Your task to perform on an android device: Clear all items from cart on newegg. Image 0: 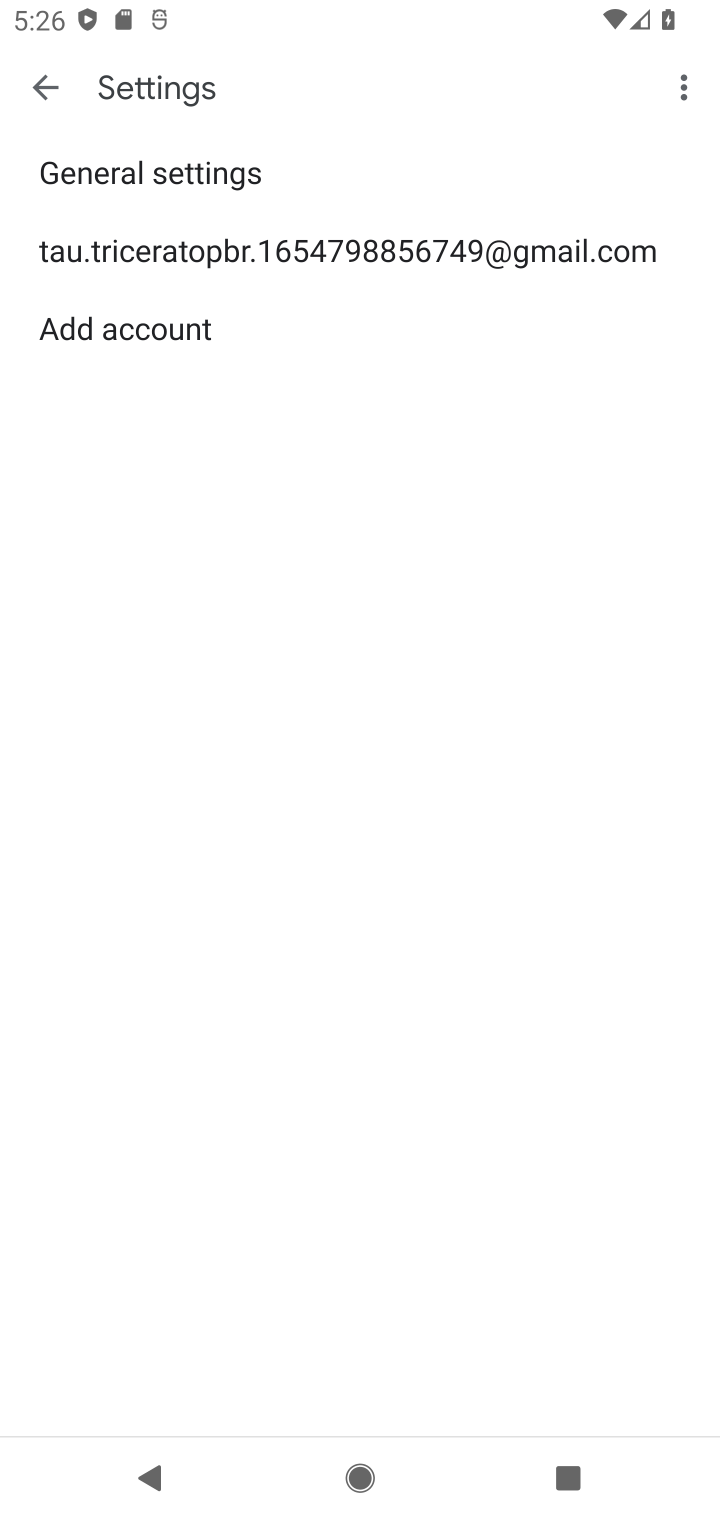
Step 0: press home button
Your task to perform on an android device: Clear all items from cart on newegg. Image 1: 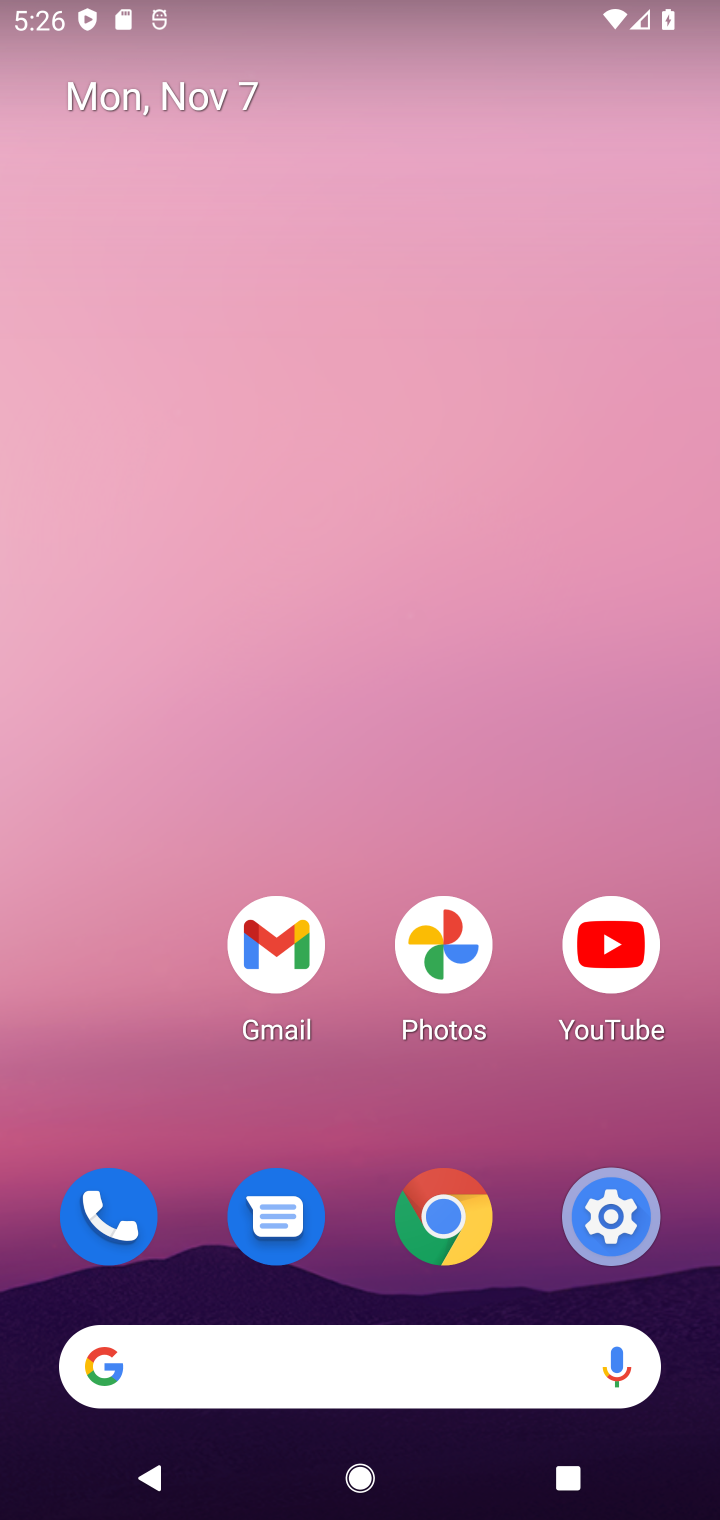
Step 1: drag from (310, 771) to (302, 145)
Your task to perform on an android device: Clear all items from cart on newegg. Image 2: 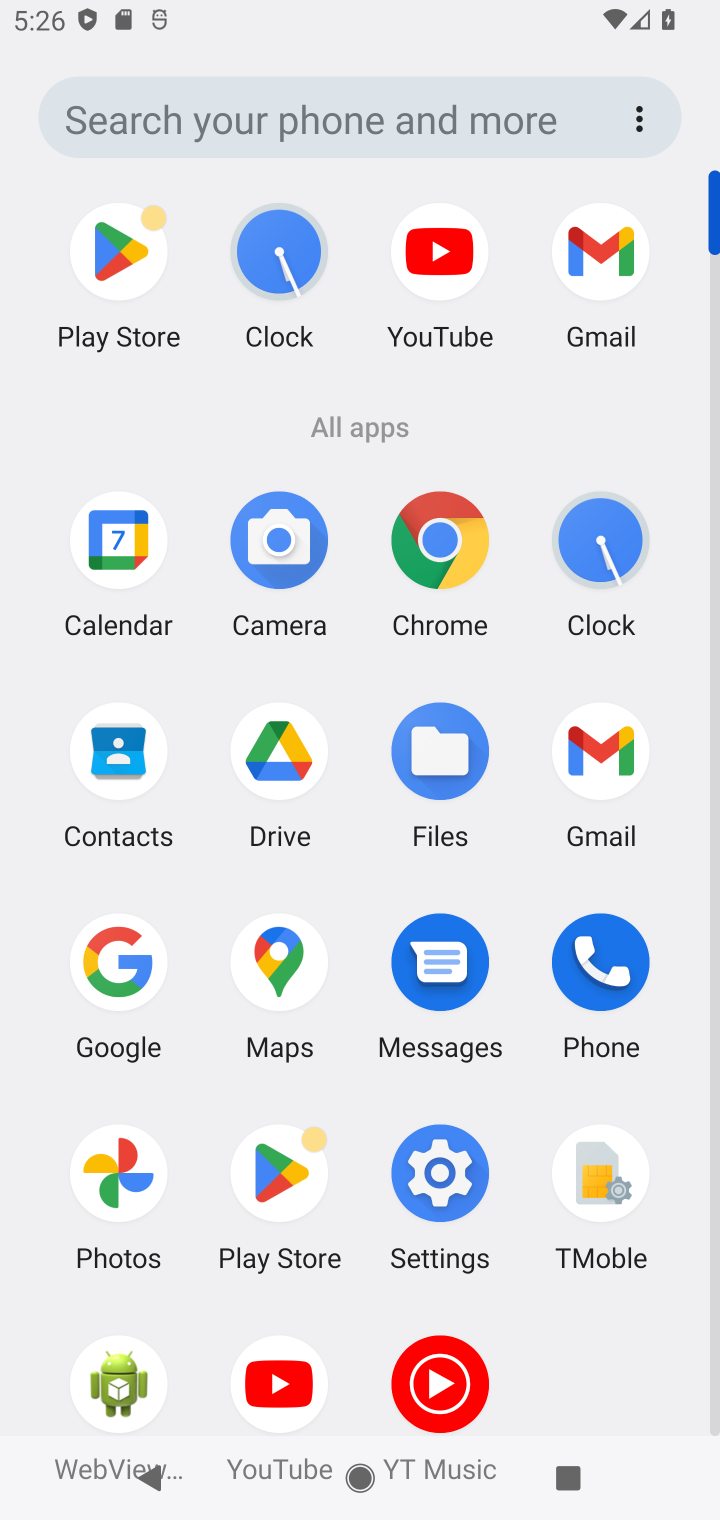
Step 2: click (447, 547)
Your task to perform on an android device: Clear all items from cart on newegg. Image 3: 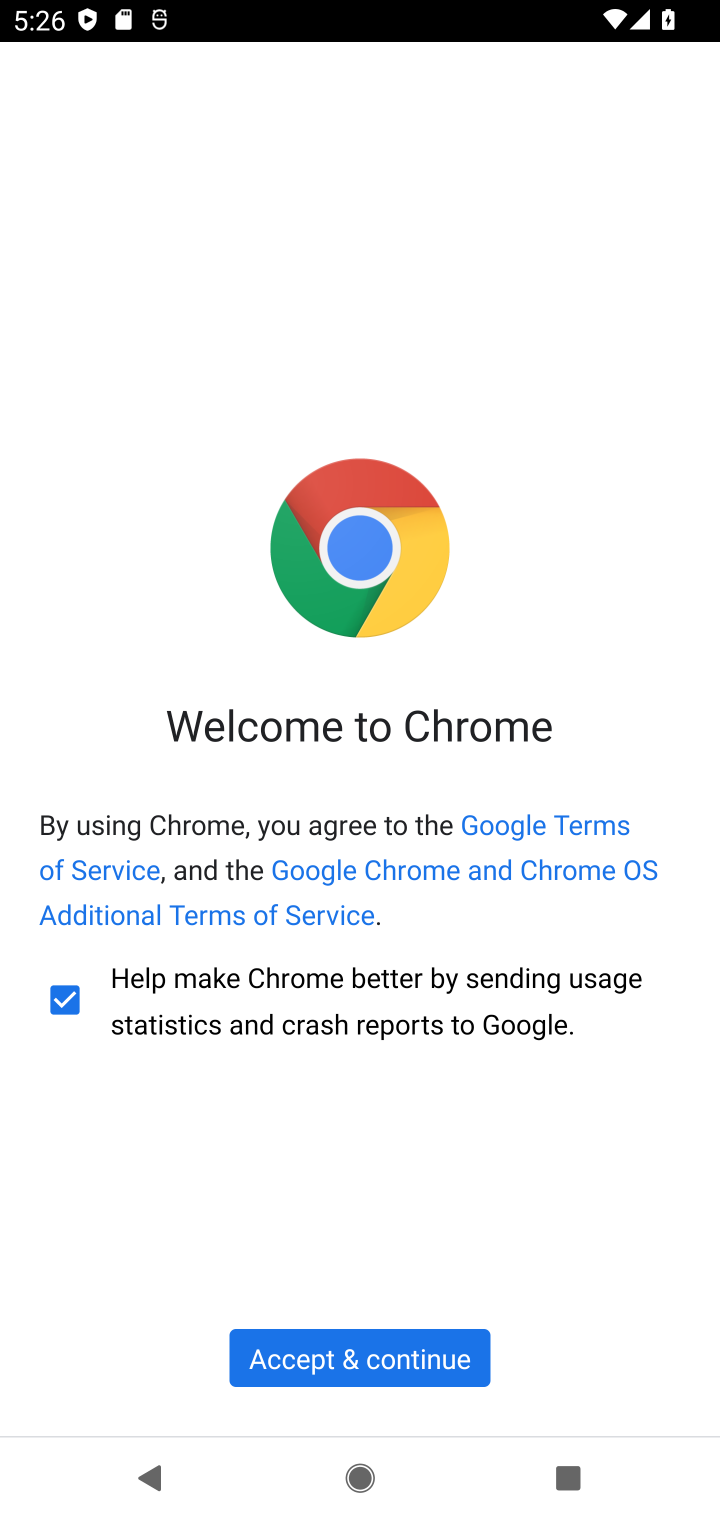
Step 3: click (351, 1349)
Your task to perform on an android device: Clear all items from cart on newegg. Image 4: 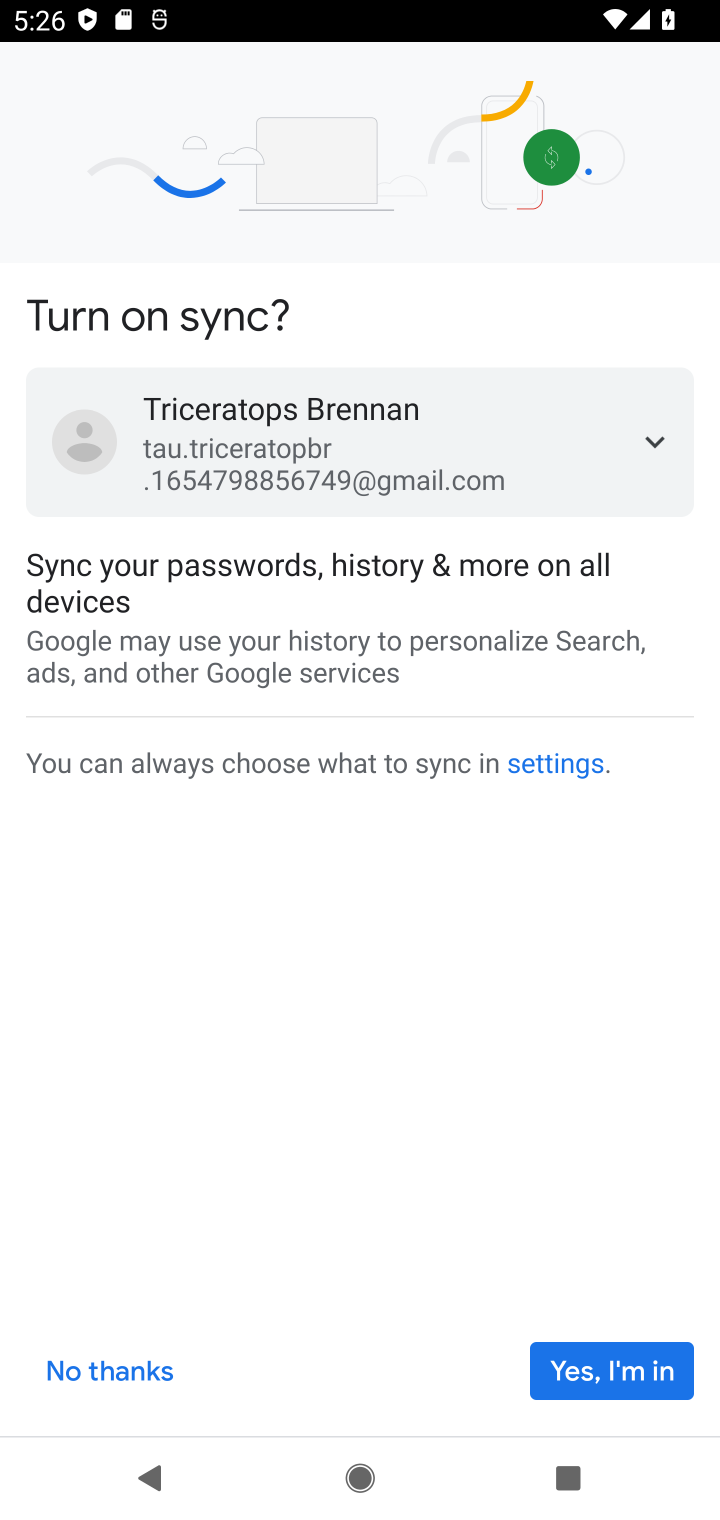
Step 4: click (617, 1348)
Your task to perform on an android device: Clear all items from cart on newegg. Image 5: 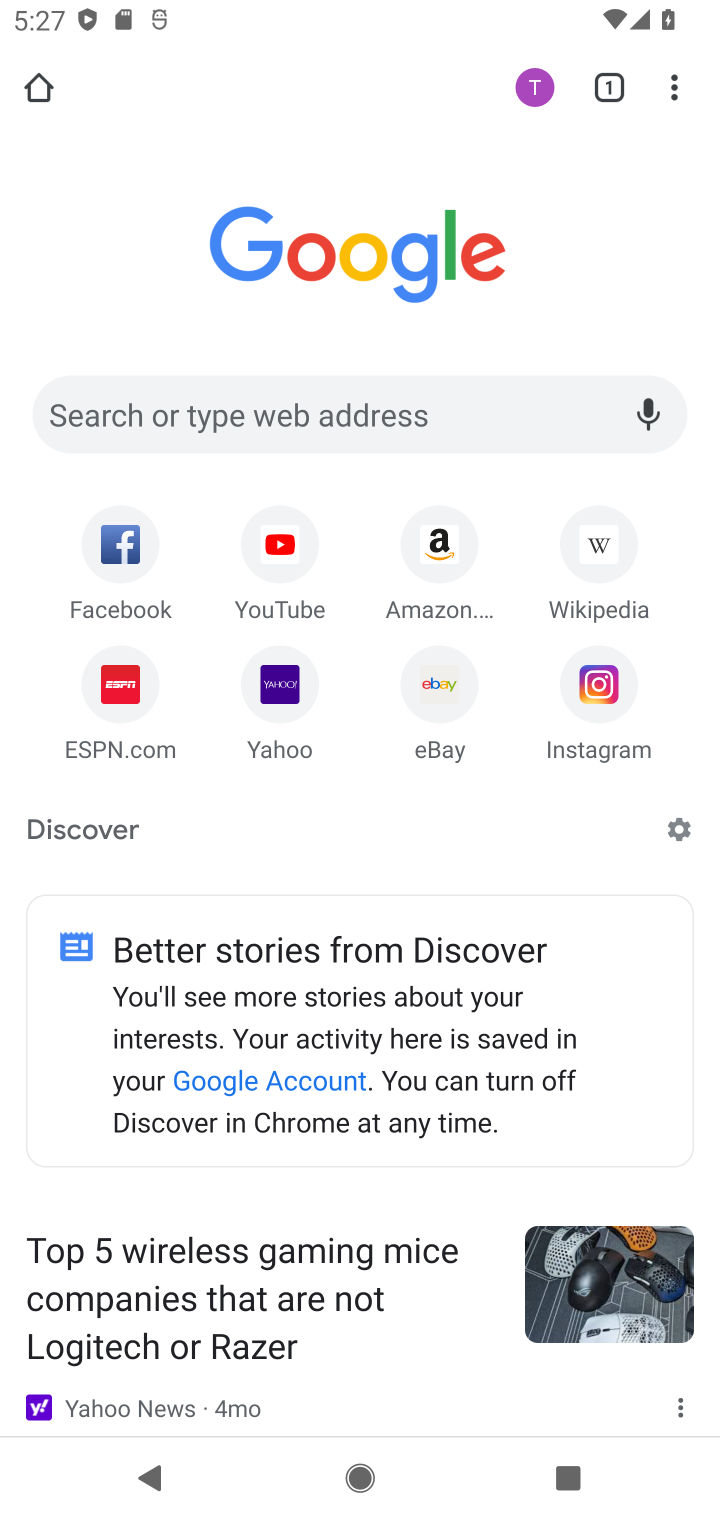
Step 5: click (519, 406)
Your task to perform on an android device: Clear all items from cart on newegg. Image 6: 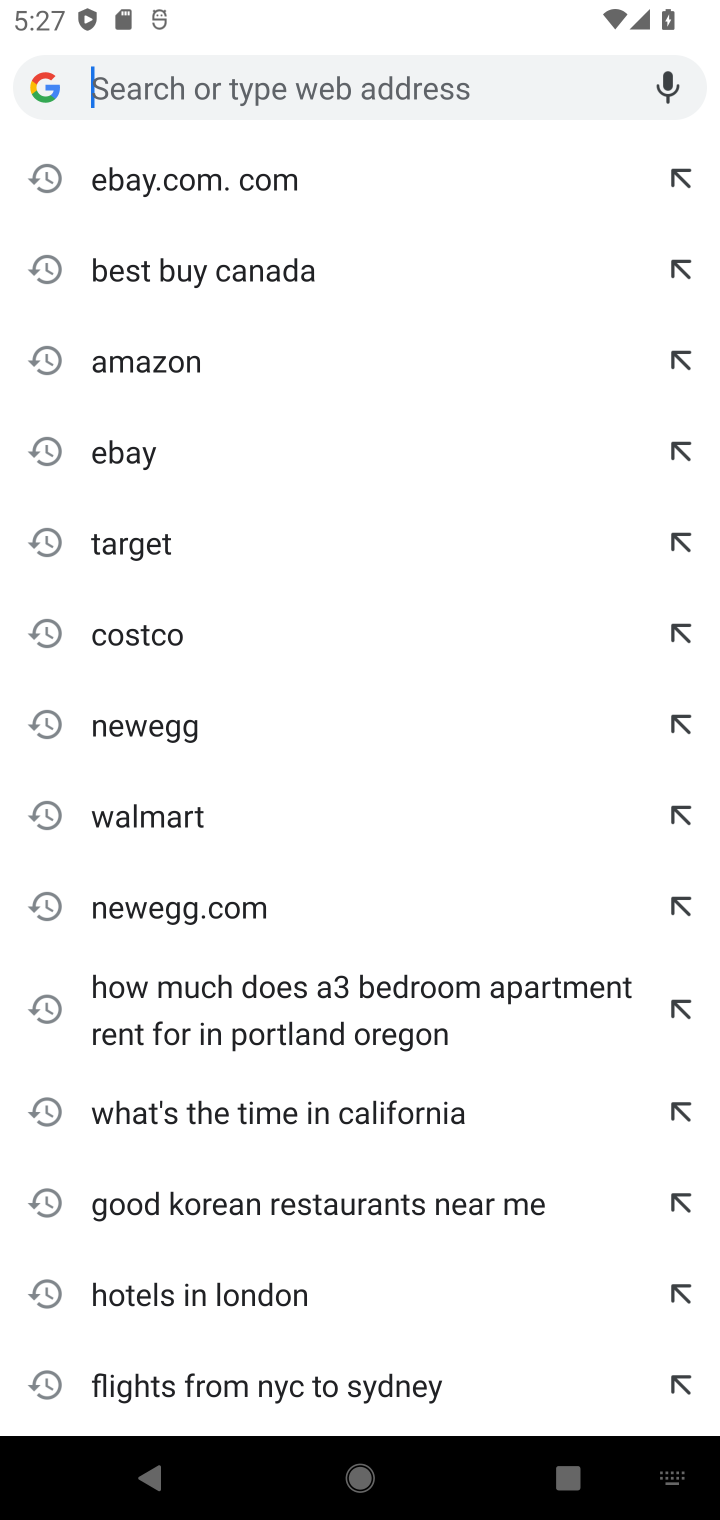
Step 6: type "neewegg.com"
Your task to perform on an android device: Clear all items from cart on newegg. Image 7: 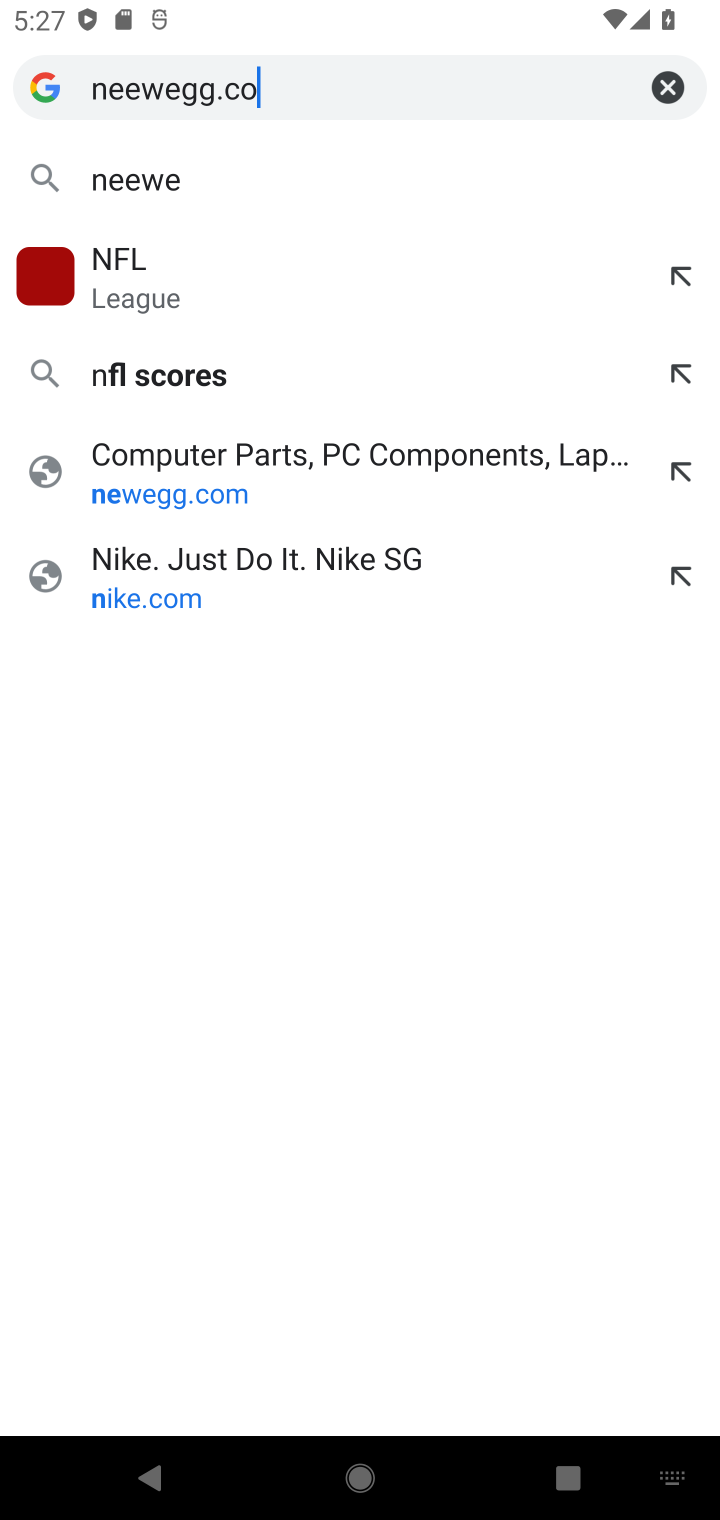
Step 7: press enter
Your task to perform on an android device: Clear all items from cart on newegg. Image 8: 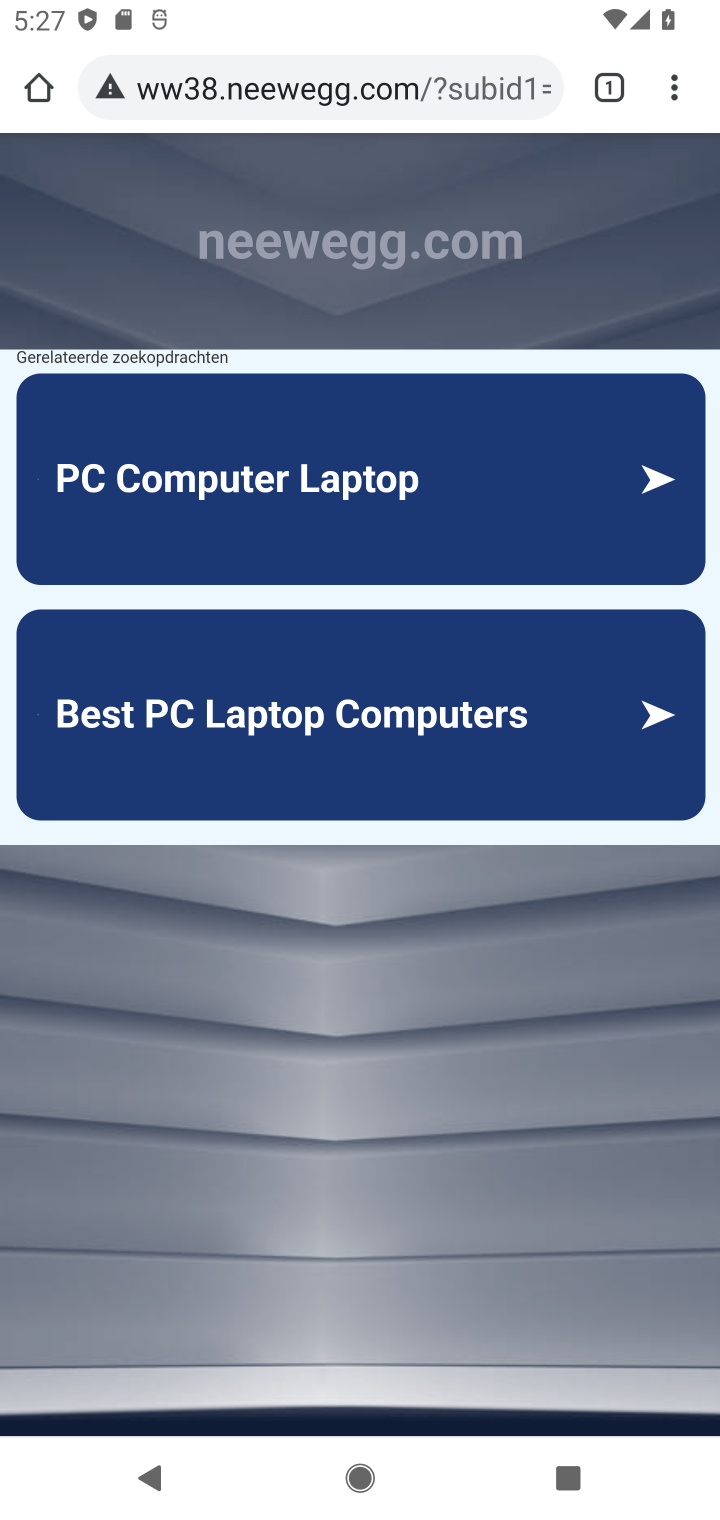
Step 8: click (352, 107)
Your task to perform on an android device: Clear all items from cart on newegg. Image 9: 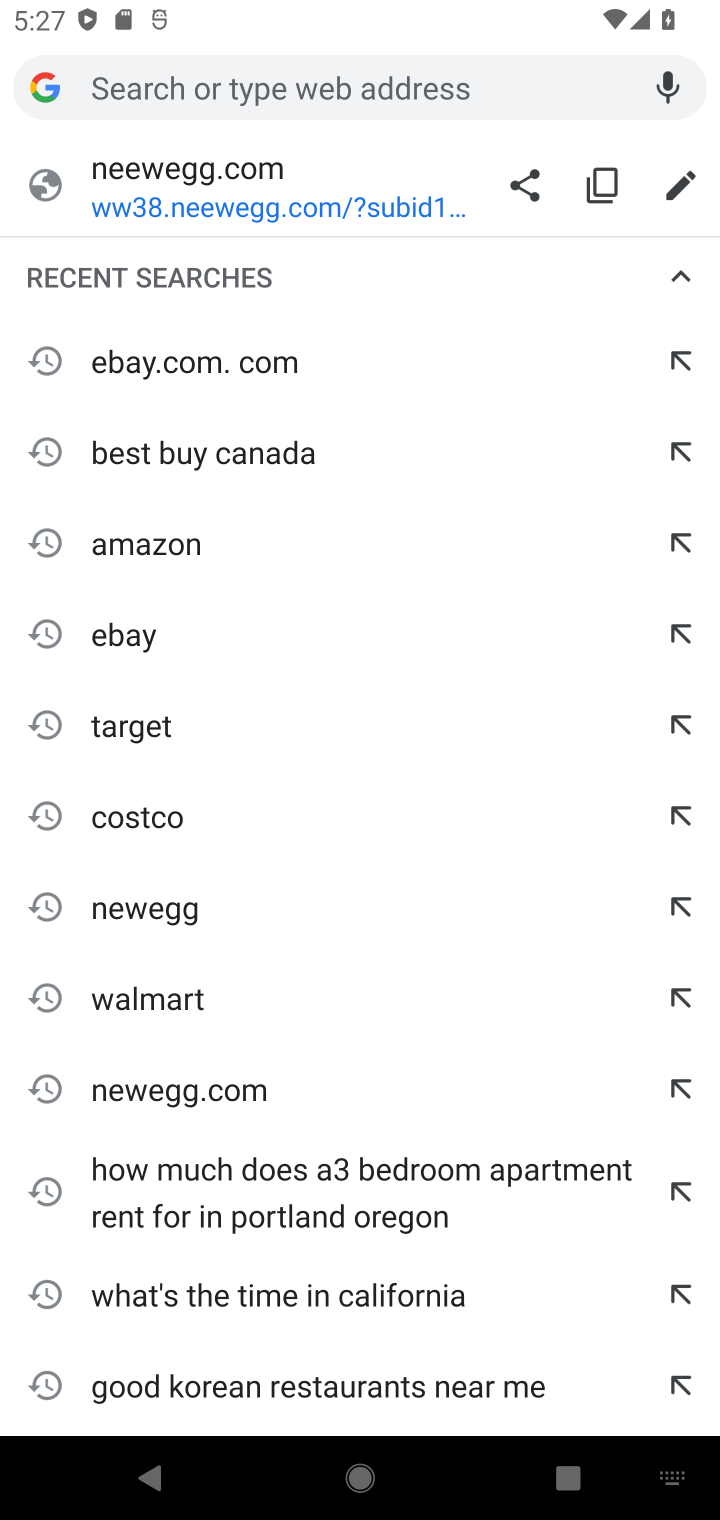
Step 9: type "newegg.com"
Your task to perform on an android device: Clear all items from cart on newegg. Image 10: 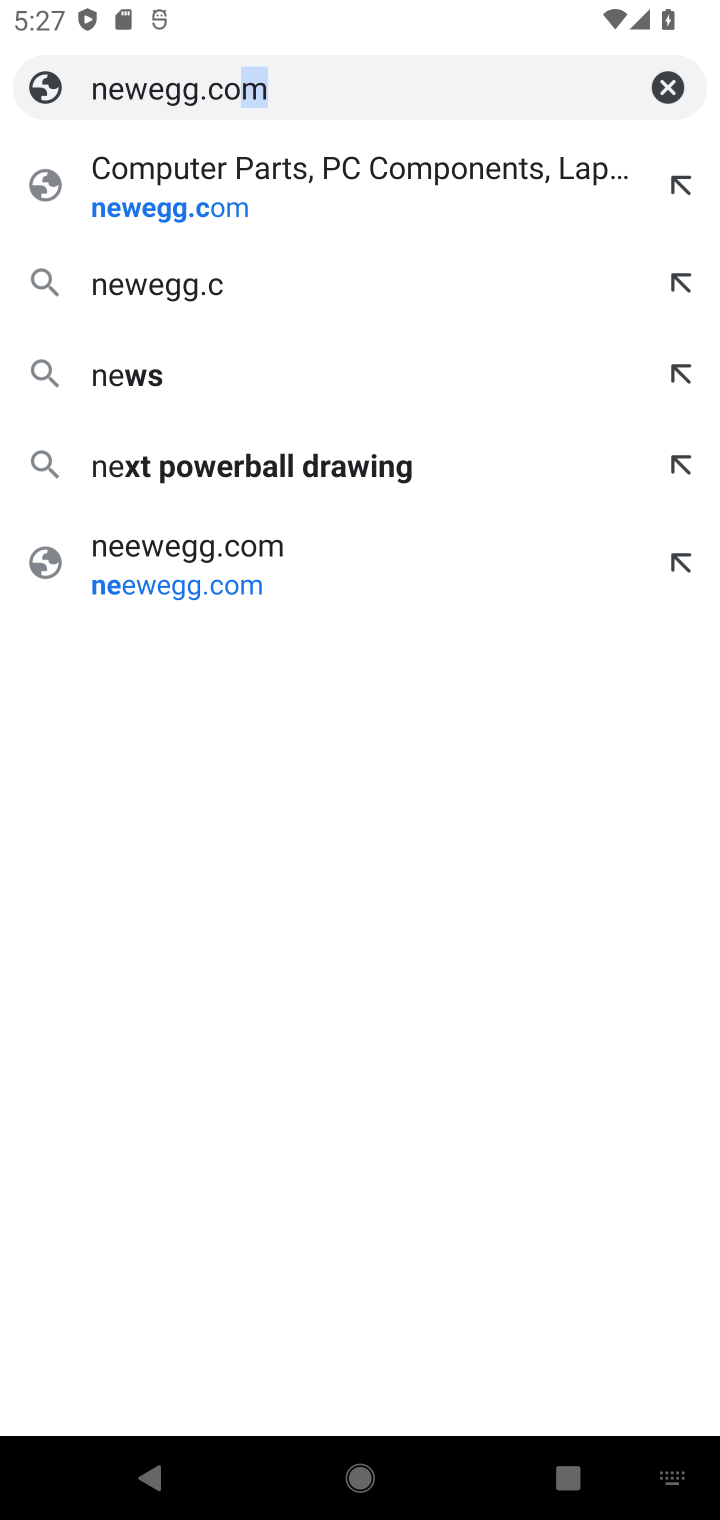
Step 10: press enter
Your task to perform on an android device: Clear all items from cart on newegg. Image 11: 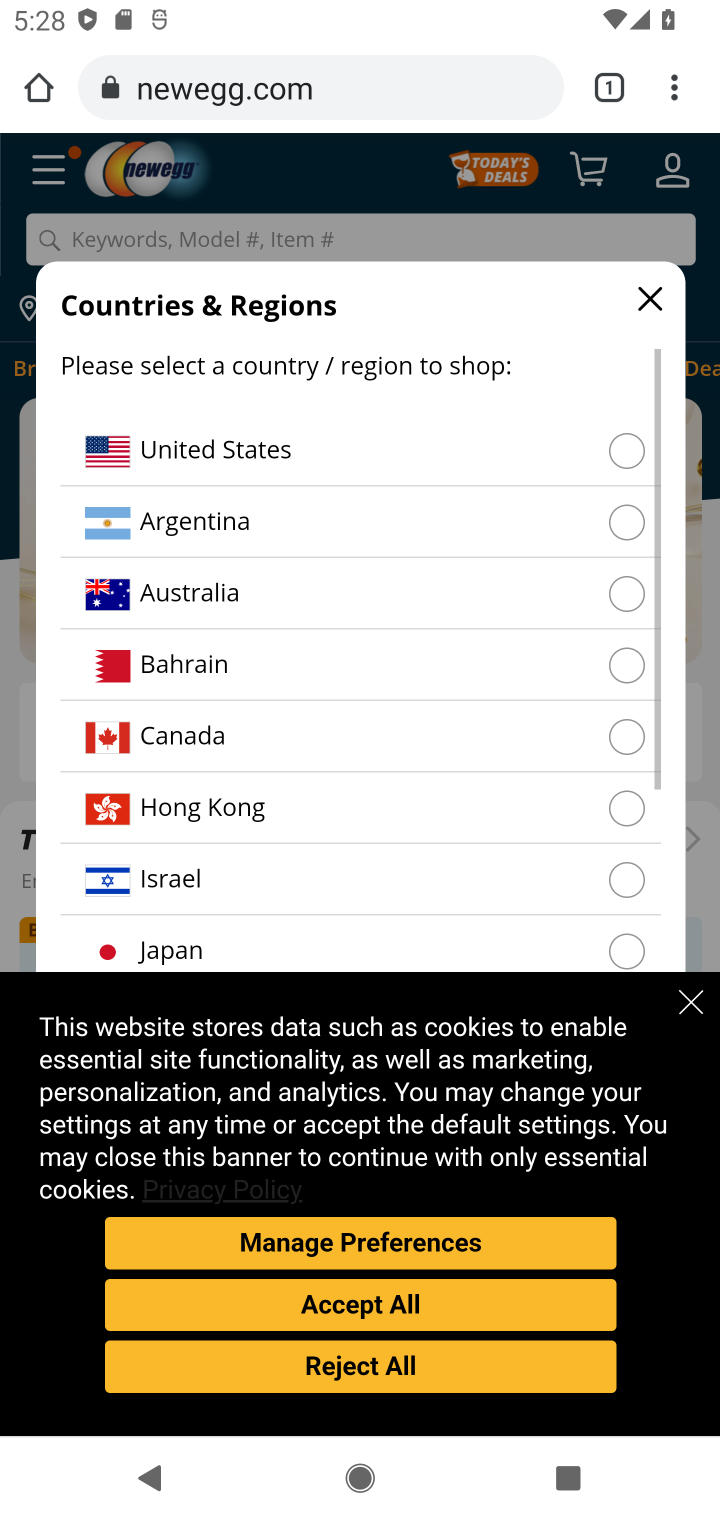
Step 11: click (657, 283)
Your task to perform on an android device: Clear all items from cart on newegg. Image 12: 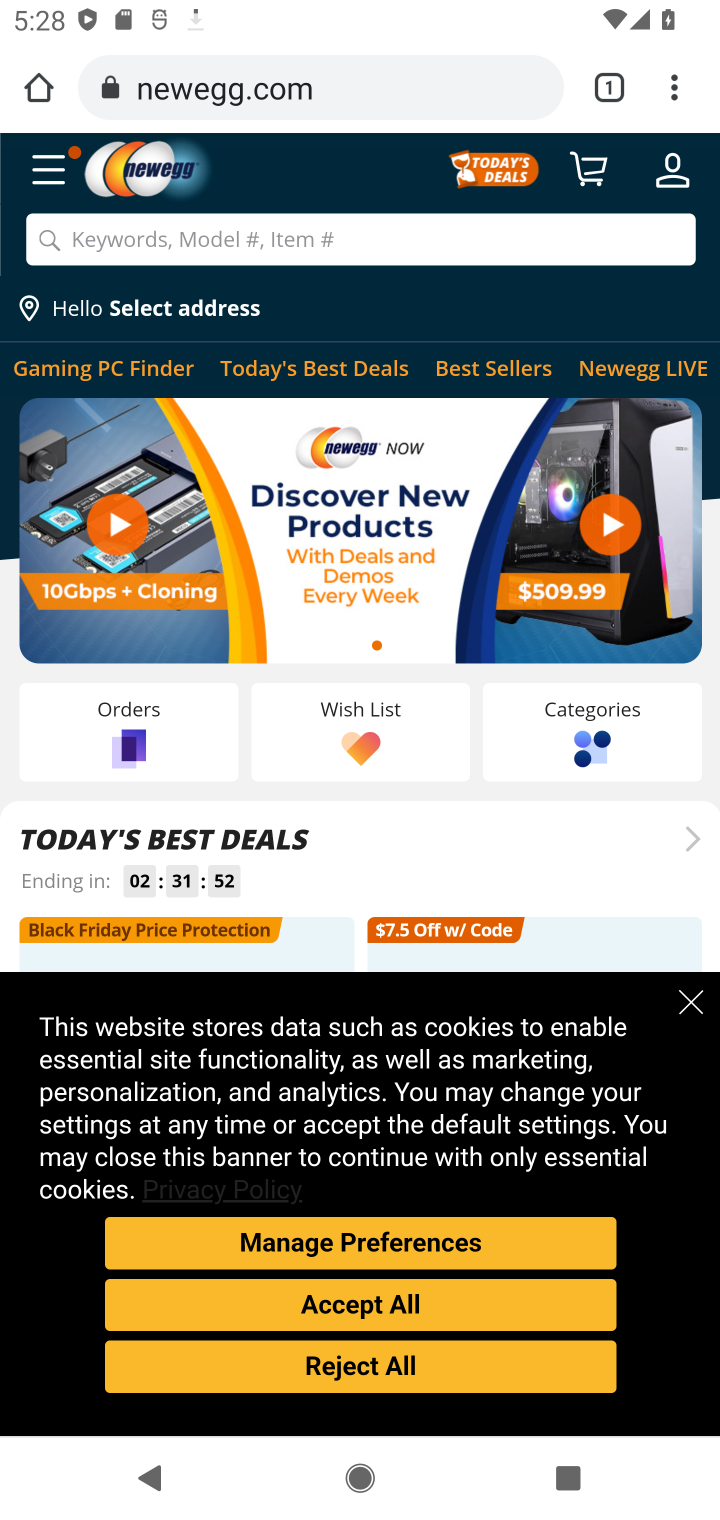
Step 12: click (607, 172)
Your task to perform on an android device: Clear all items from cart on newegg. Image 13: 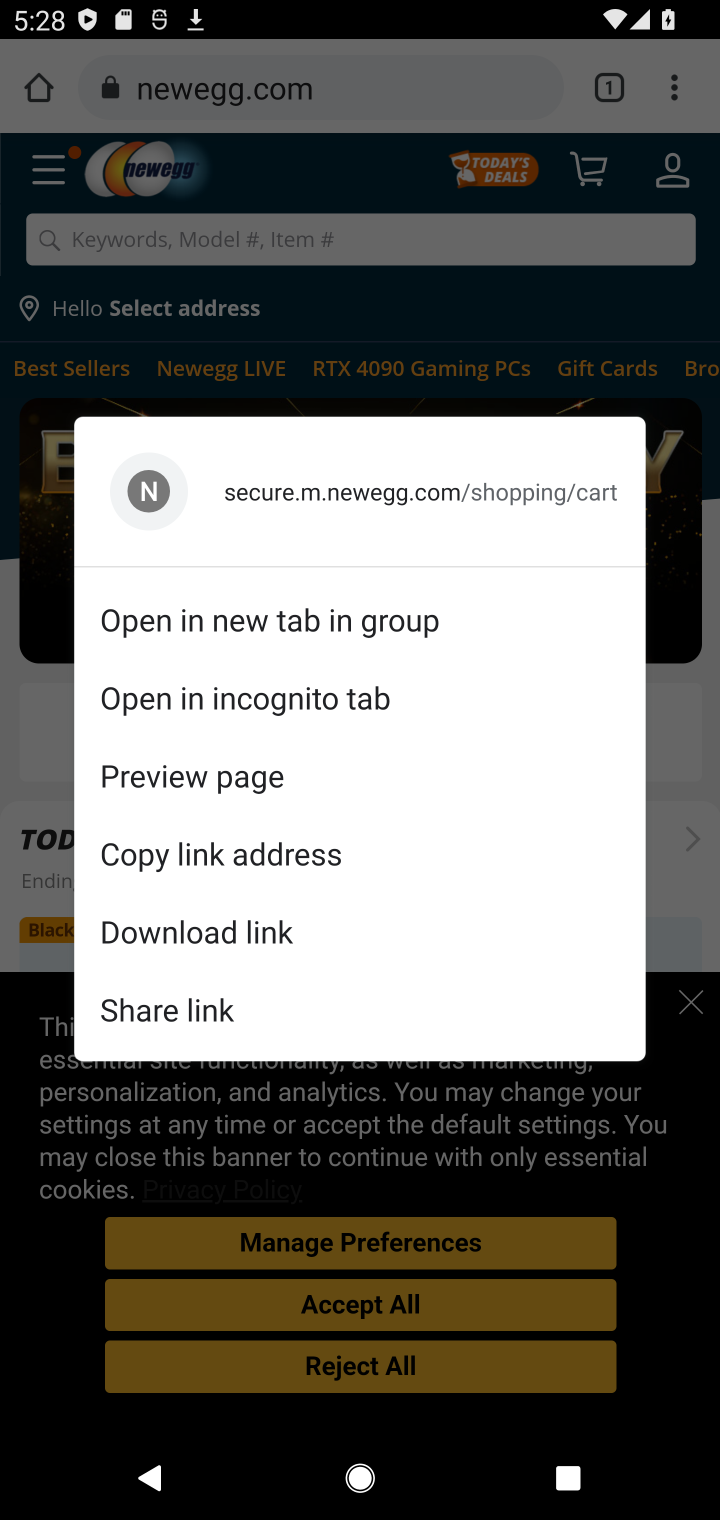
Step 13: click (578, 234)
Your task to perform on an android device: Clear all items from cart on newegg. Image 14: 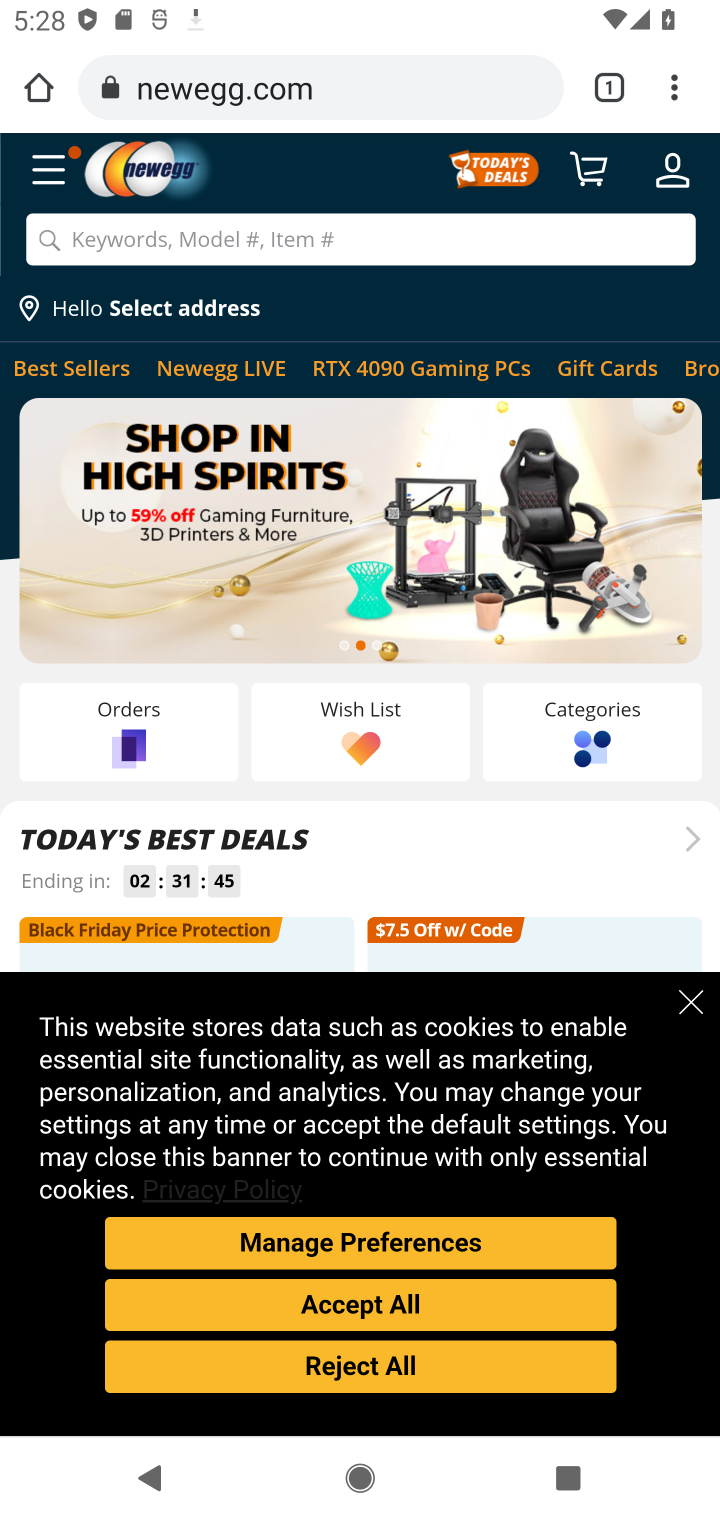
Step 14: click (590, 186)
Your task to perform on an android device: Clear all items from cart on newegg. Image 15: 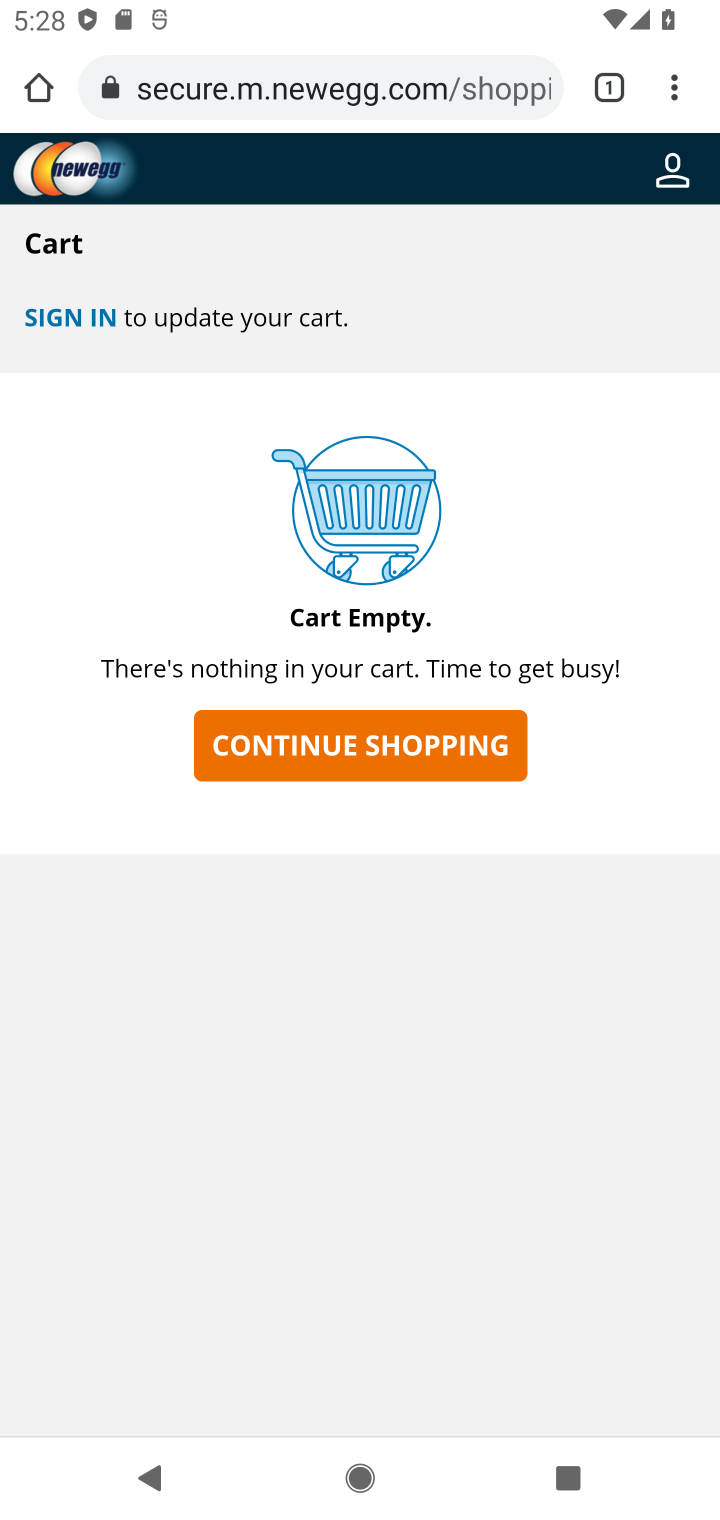
Step 15: task complete